Your task to perform on an android device: read, delete, or share a saved page in the chrome app Image 0: 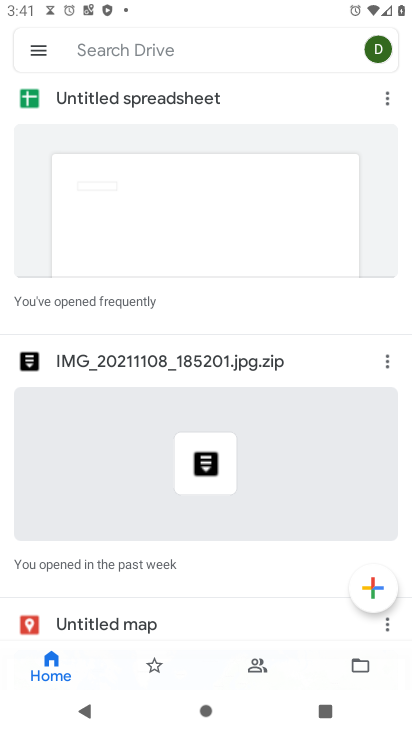
Step 0: press back button
Your task to perform on an android device: read, delete, or share a saved page in the chrome app Image 1: 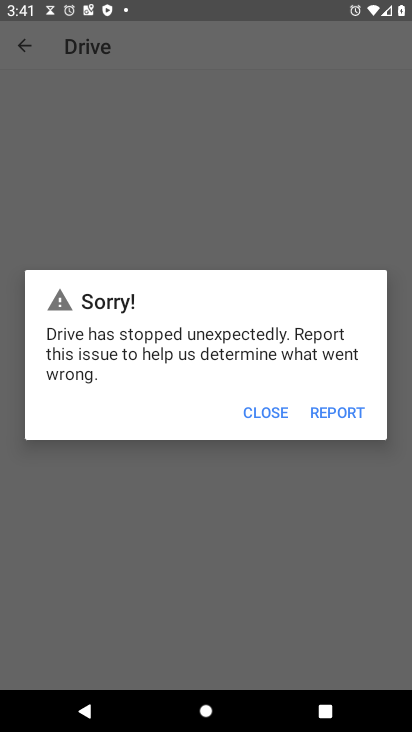
Step 1: press back button
Your task to perform on an android device: read, delete, or share a saved page in the chrome app Image 2: 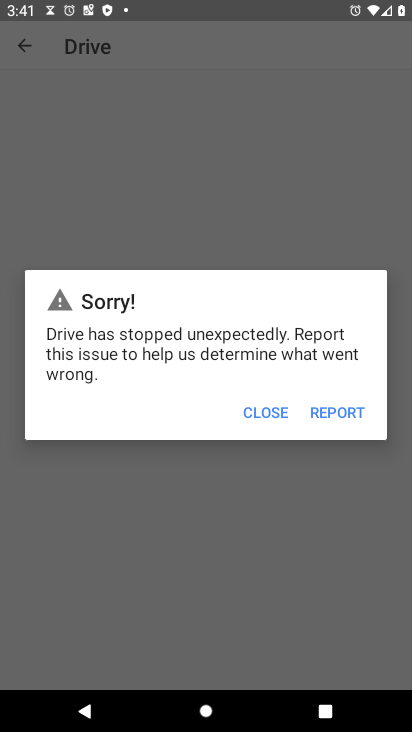
Step 2: press home button
Your task to perform on an android device: read, delete, or share a saved page in the chrome app Image 3: 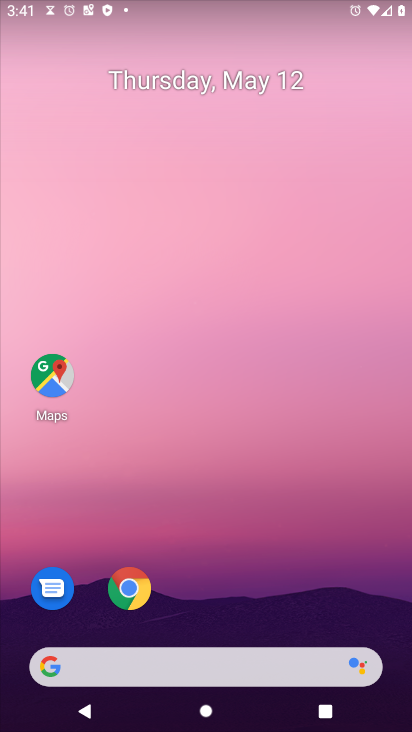
Step 3: drag from (233, 532) to (232, 28)
Your task to perform on an android device: read, delete, or share a saved page in the chrome app Image 4: 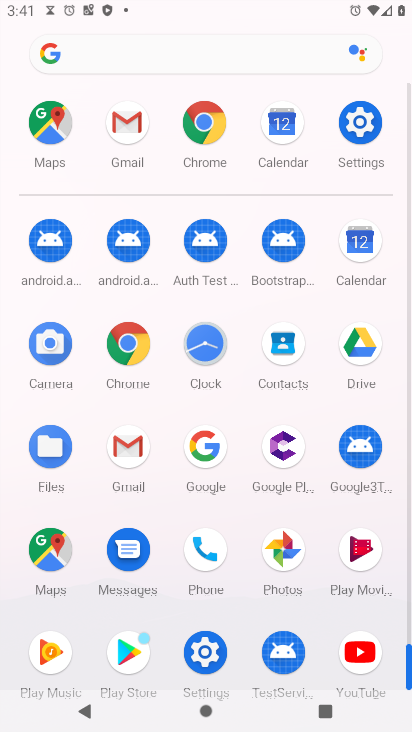
Step 4: drag from (5, 561) to (31, 276)
Your task to perform on an android device: read, delete, or share a saved page in the chrome app Image 5: 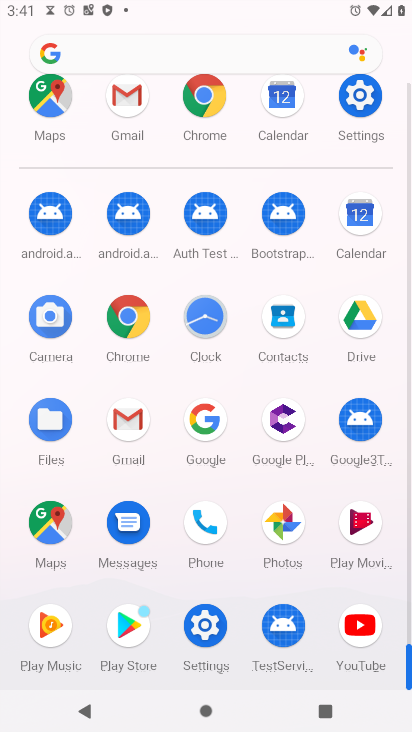
Step 5: click (121, 312)
Your task to perform on an android device: read, delete, or share a saved page in the chrome app Image 6: 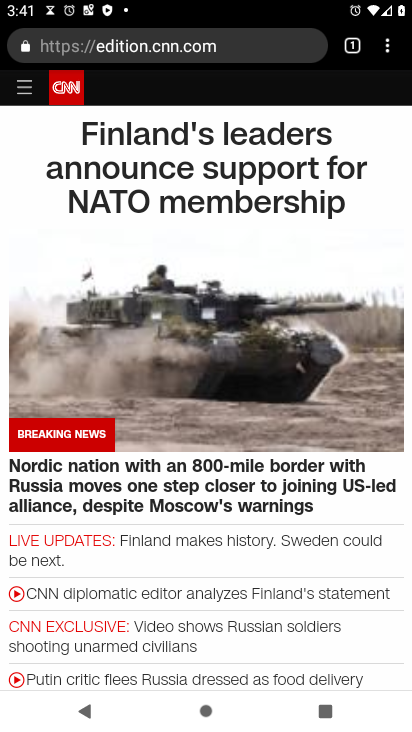
Step 6: task complete